Your task to perform on an android device: Go to eBay Image 0: 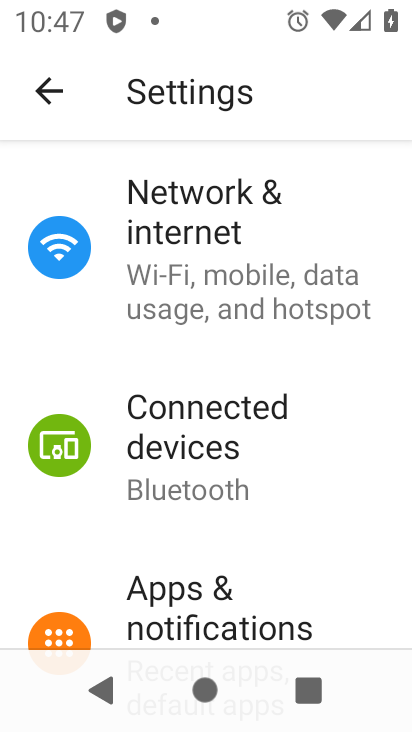
Step 0: press home button
Your task to perform on an android device: Go to eBay Image 1: 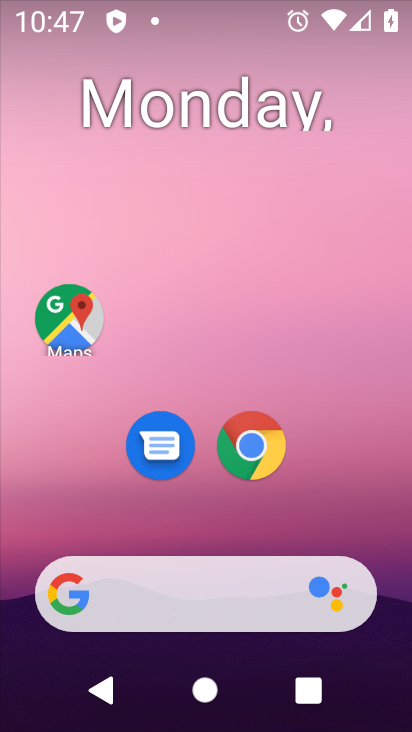
Step 1: drag from (302, 459) to (305, 157)
Your task to perform on an android device: Go to eBay Image 2: 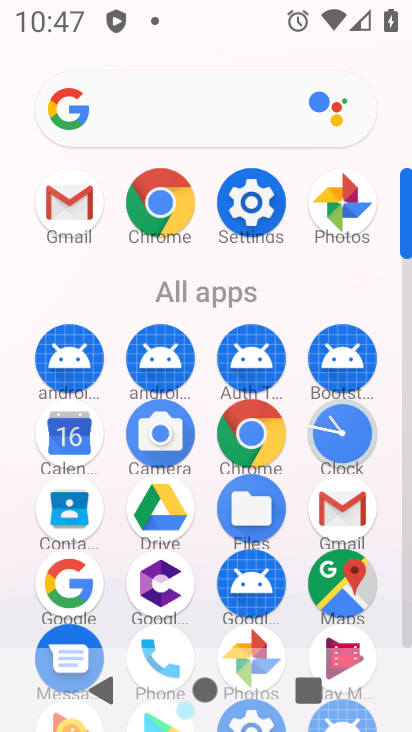
Step 2: click (151, 220)
Your task to perform on an android device: Go to eBay Image 3: 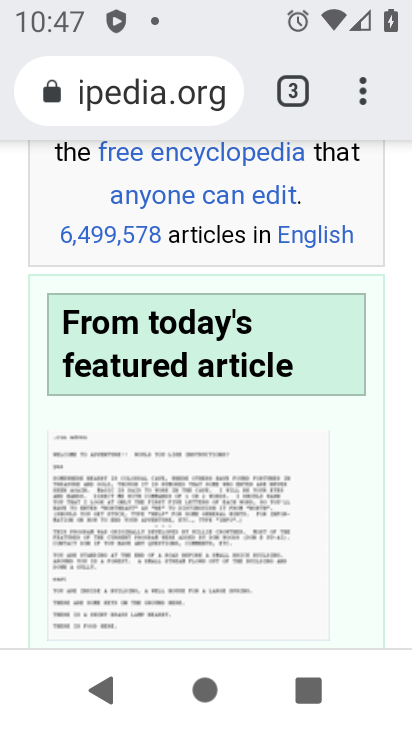
Step 3: click (291, 103)
Your task to perform on an android device: Go to eBay Image 4: 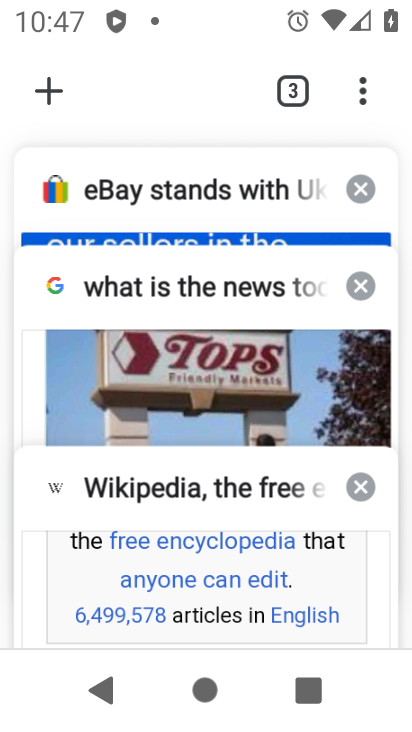
Step 4: click (195, 195)
Your task to perform on an android device: Go to eBay Image 5: 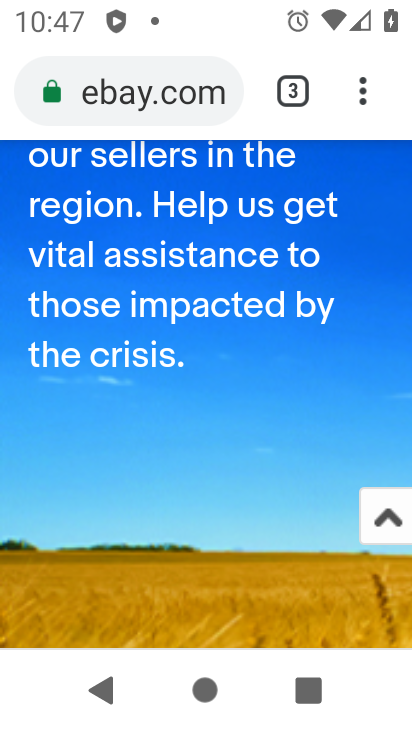
Step 5: task complete